Your task to perform on an android device: set the stopwatch Image 0: 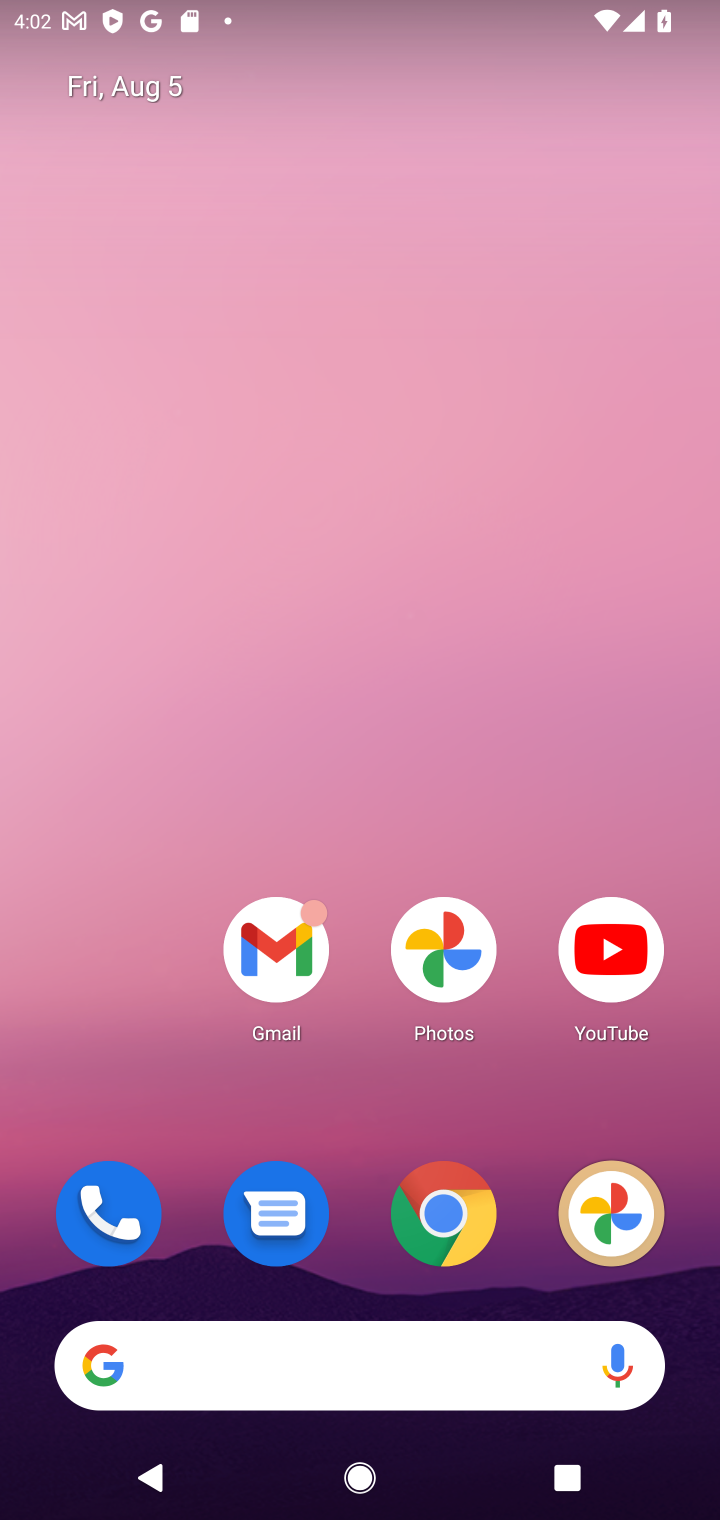
Step 0: drag from (357, 1290) to (455, 36)
Your task to perform on an android device: set the stopwatch Image 1: 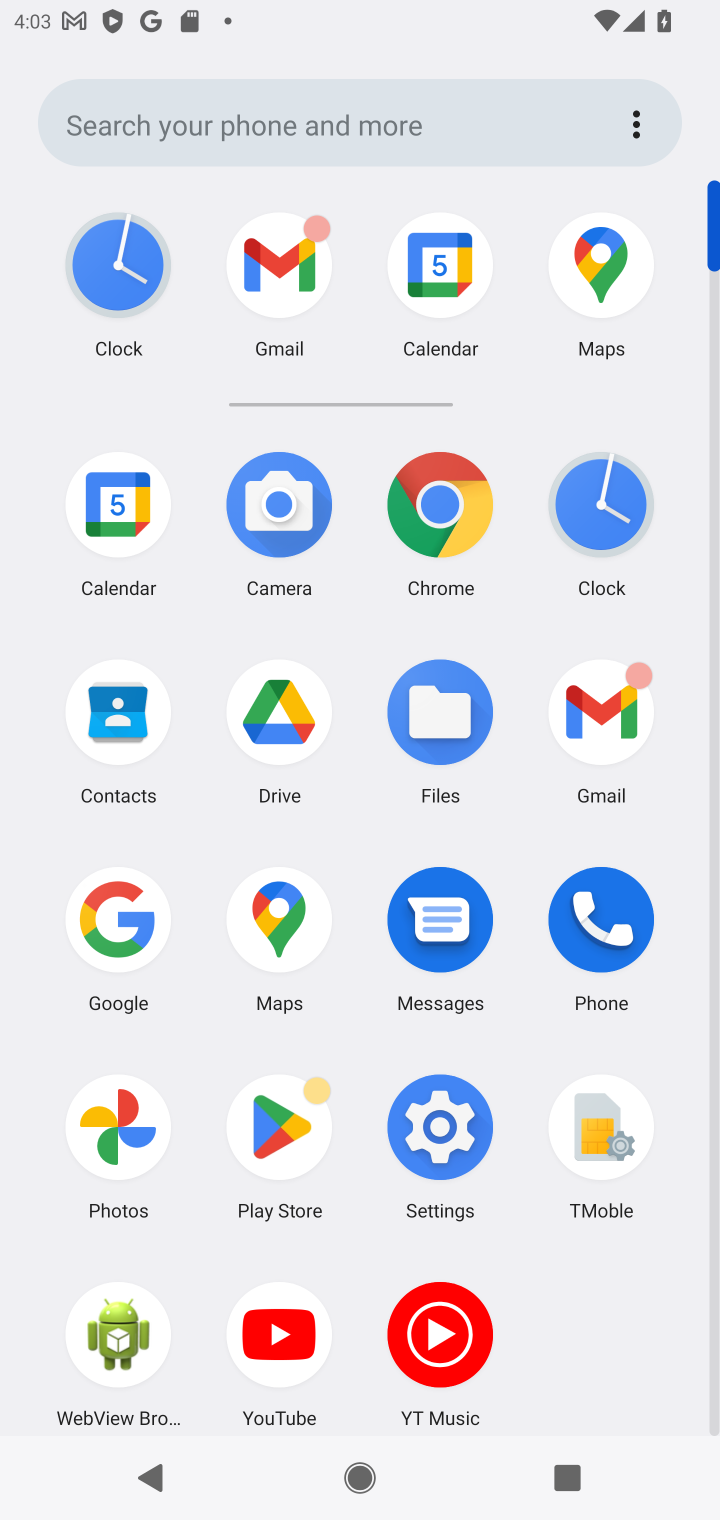
Step 1: click (132, 251)
Your task to perform on an android device: set the stopwatch Image 2: 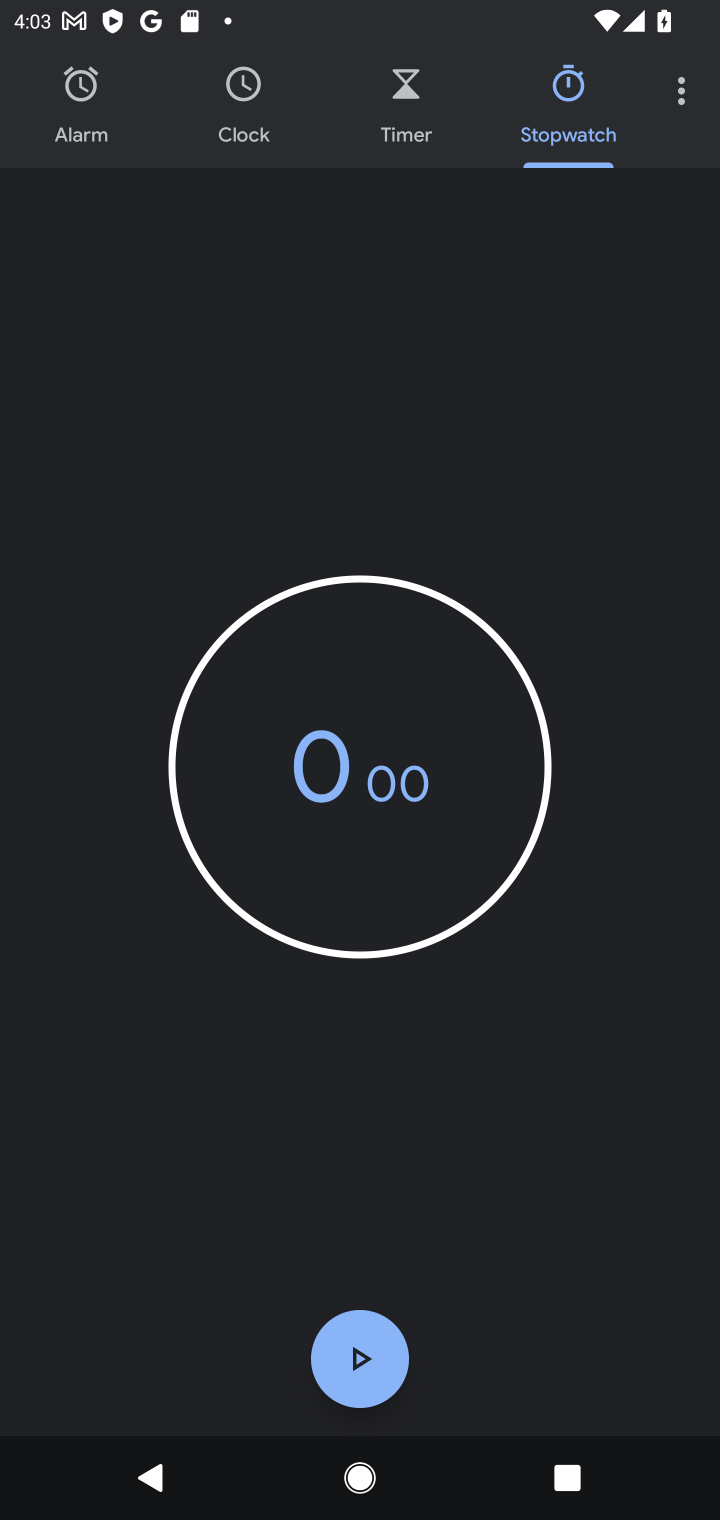
Step 2: task complete